Your task to perform on an android device: Go to Yahoo.com Image 0: 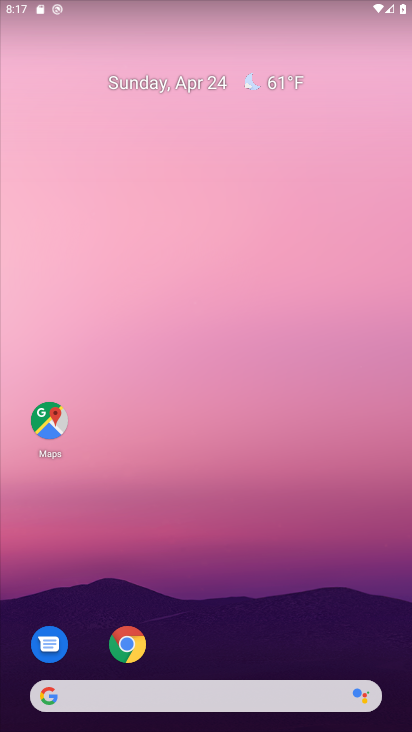
Step 0: drag from (213, 657) to (186, 89)
Your task to perform on an android device: Go to Yahoo.com Image 1: 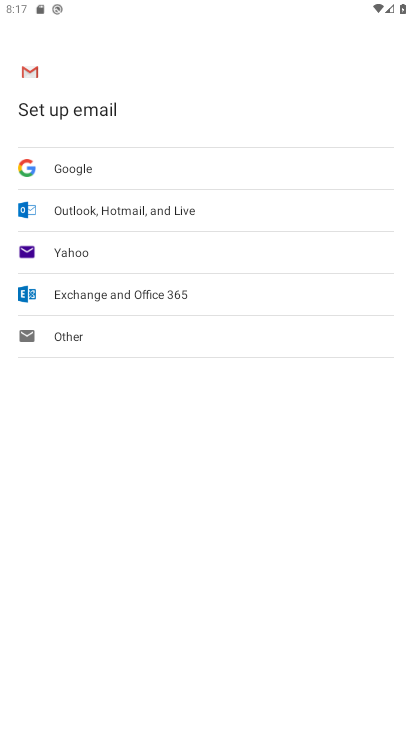
Step 1: press home button
Your task to perform on an android device: Go to Yahoo.com Image 2: 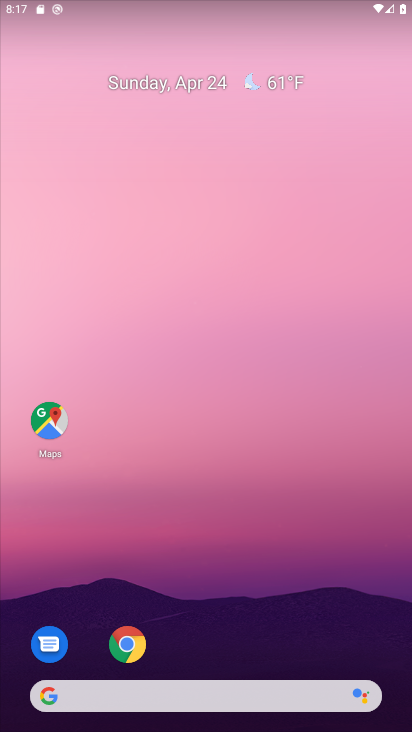
Step 2: drag from (241, 654) to (233, 52)
Your task to perform on an android device: Go to Yahoo.com Image 3: 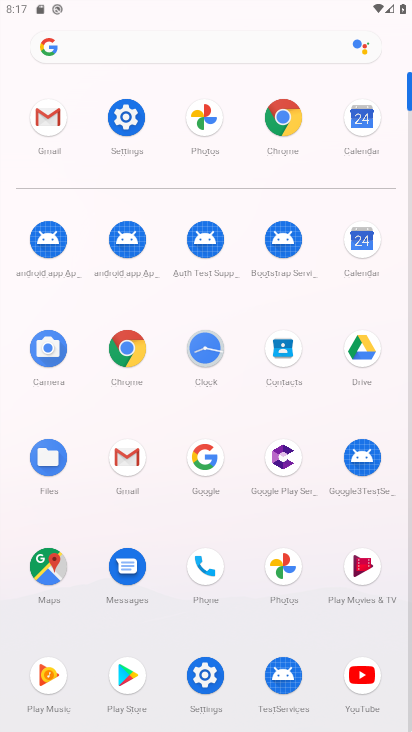
Step 3: click (125, 345)
Your task to perform on an android device: Go to Yahoo.com Image 4: 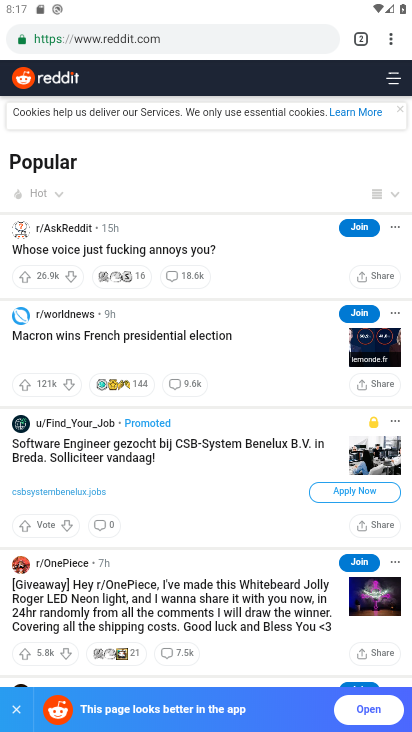
Step 4: click (360, 36)
Your task to perform on an android device: Go to Yahoo.com Image 5: 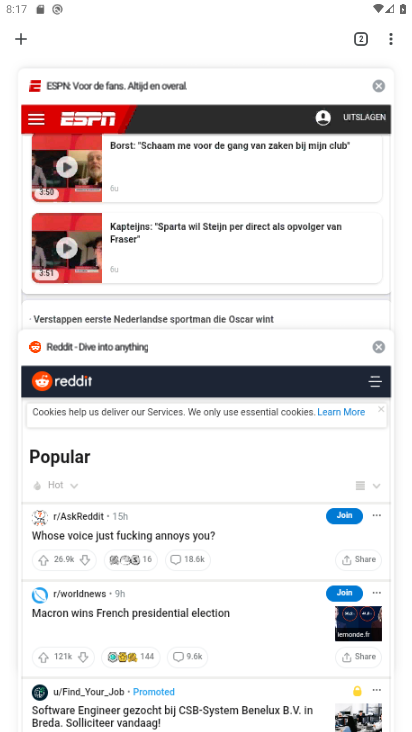
Step 5: click (22, 42)
Your task to perform on an android device: Go to Yahoo.com Image 6: 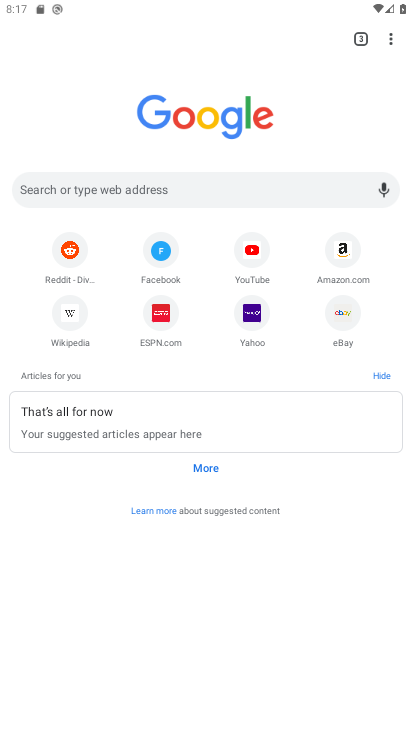
Step 6: click (247, 311)
Your task to perform on an android device: Go to Yahoo.com Image 7: 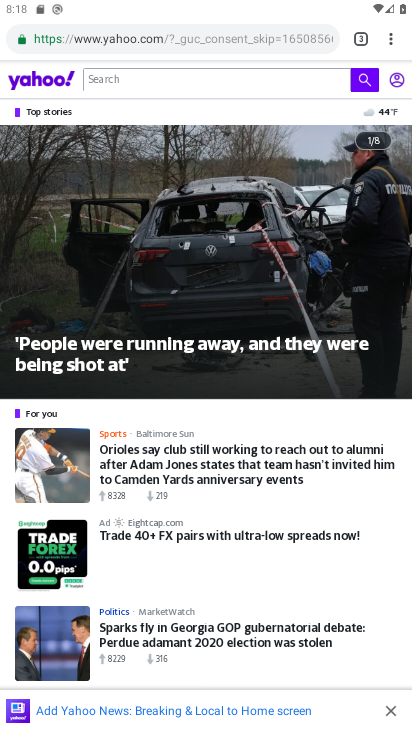
Step 7: task complete